Your task to perform on an android device: change the clock display to digital Image 0: 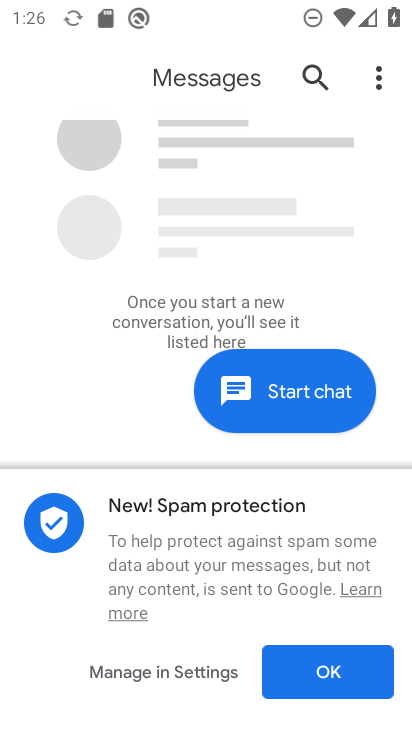
Step 0: press home button
Your task to perform on an android device: change the clock display to digital Image 1: 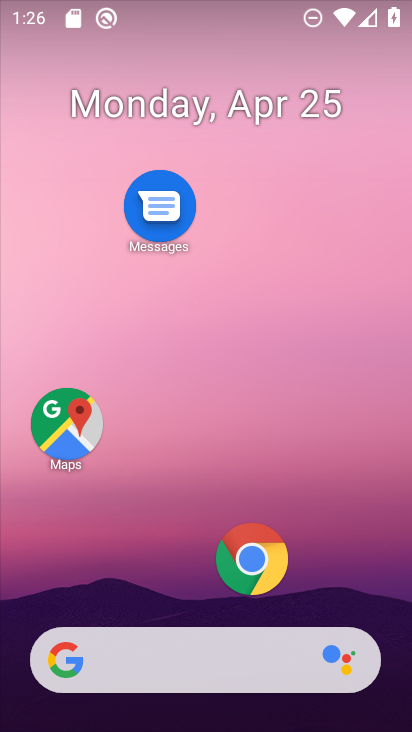
Step 1: drag from (214, 506) to (304, 159)
Your task to perform on an android device: change the clock display to digital Image 2: 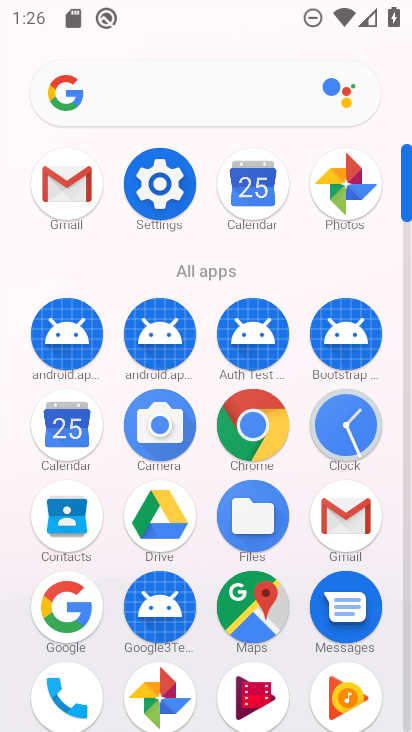
Step 2: click (360, 433)
Your task to perform on an android device: change the clock display to digital Image 3: 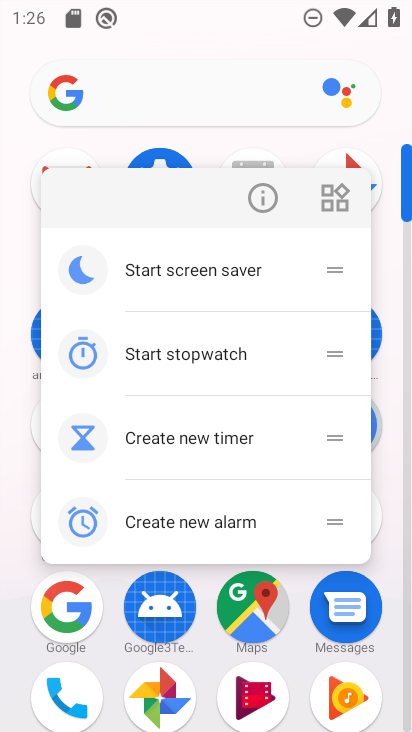
Step 3: click (260, 31)
Your task to perform on an android device: change the clock display to digital Image 4: 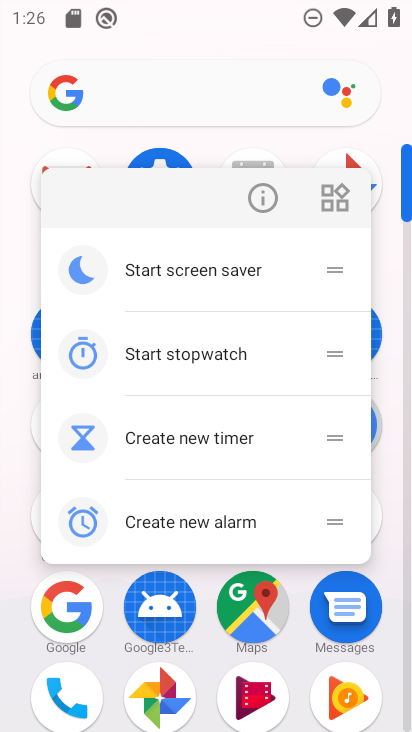
Step 4: click (228, 29)
Your task to perform on an android device: change the clock display to digital Image 5: 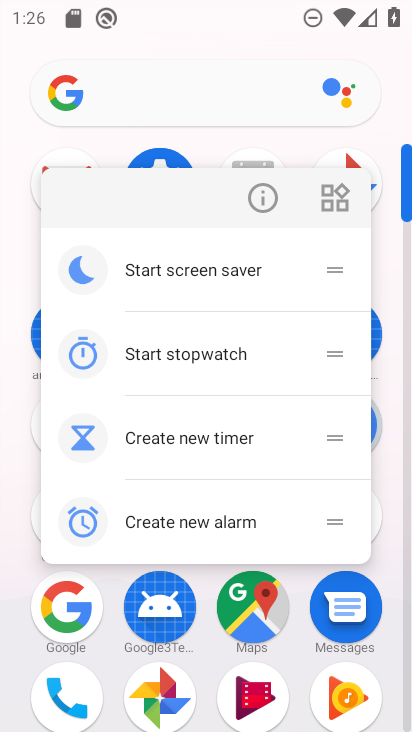
Step 5: press back button
Your task to perform on an android device: change the clock display to digital Image 6: 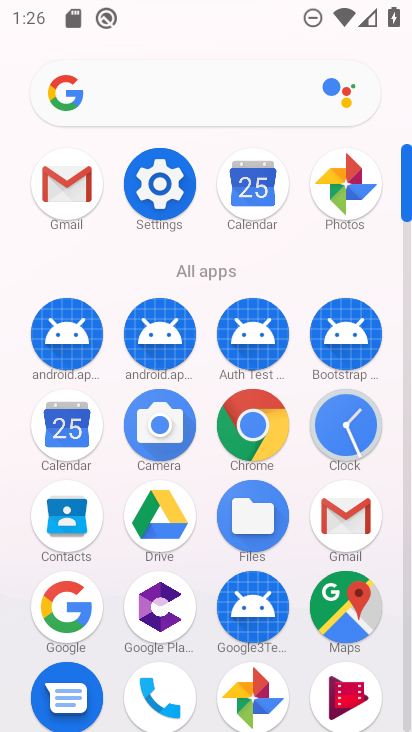
Step 6: click (360, 435)
Your task to perform on an android device: change the clock display to digital Image 7: 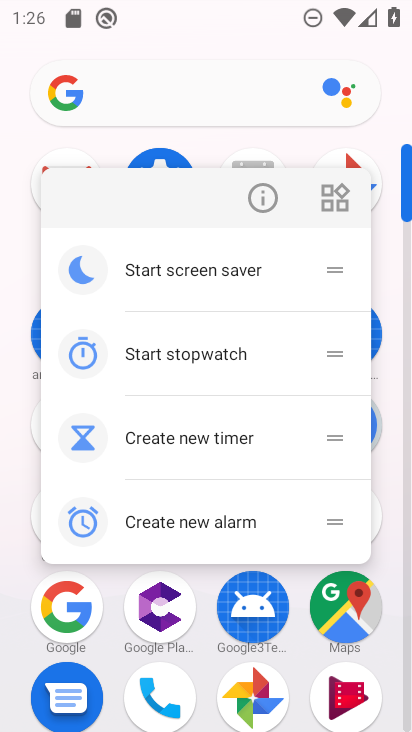
Step 7: click (373, 424)
Your task to perform on an android device: change the clock display to digital Image 8: 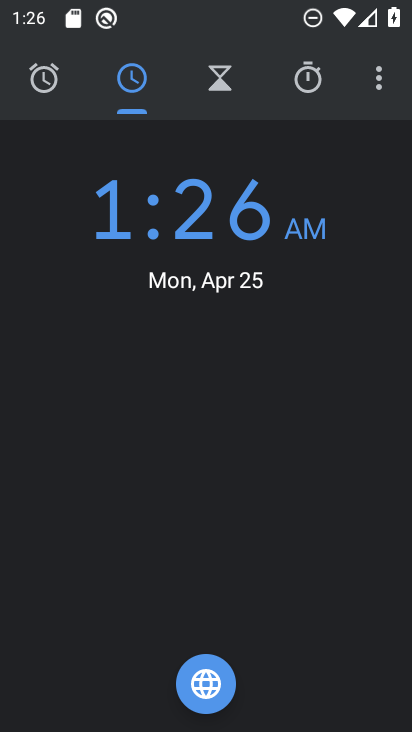
Step 8: click (379, 78)
Your task to perform on an android device: change the clock display to digital Image 9: 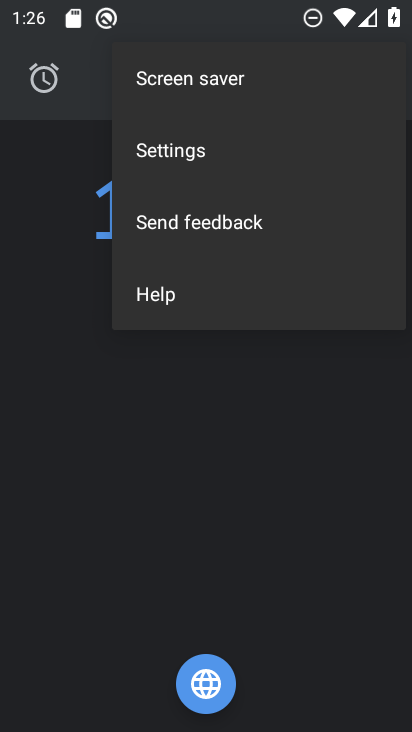
Step 9: click (225, 163)
Your task to perform on an android device: change the clock display to digital Image 10: 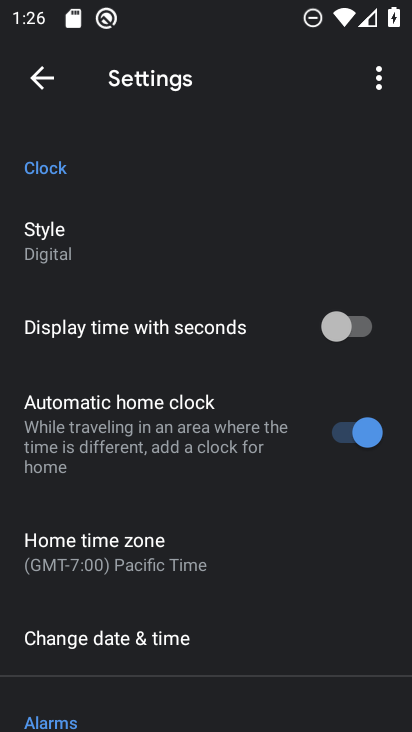
Step 10: click (191, 242)
Your task to perform on an android device: change the clock display to digital Image 11: 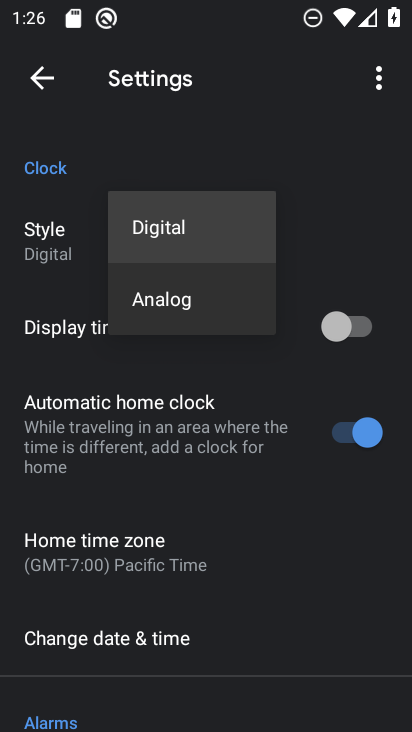
Step 11: click (189, 219)
Your task to perform on an android device: change the clock display to digital Image 12: 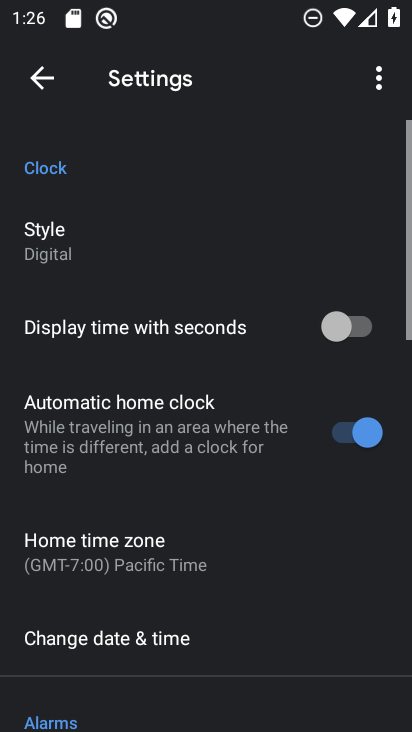
Step 12: task complete